Your task to perform on an android device: turn on notifications settings in the gmail app Image 0: 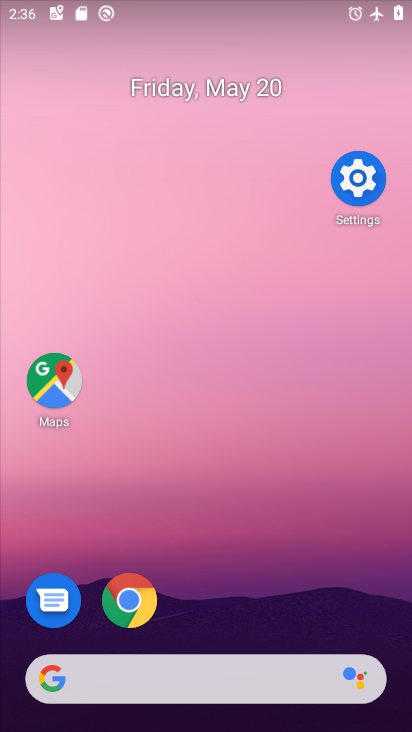
Step 0: drag from (194, 613) to (265, 18)
Your task to perform on an android device: turn on notifications settings in the gmail app Image 1: 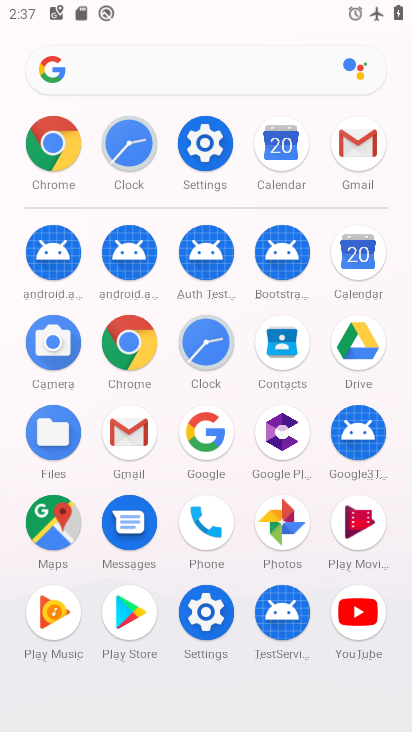
Step 1: click (141, 456)
Your task to perform on an android device: turn on notifications settings in the gmail app Image 2: 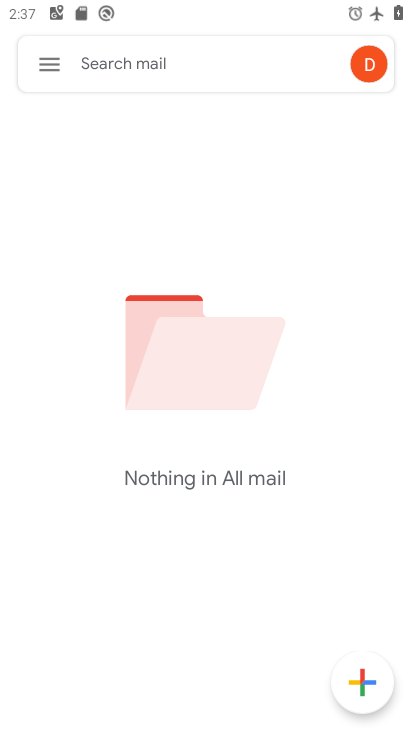
Step 2: click (53, 63)
Your task to perform on an android device: turn on notifications settings in the gmail app Image 3: 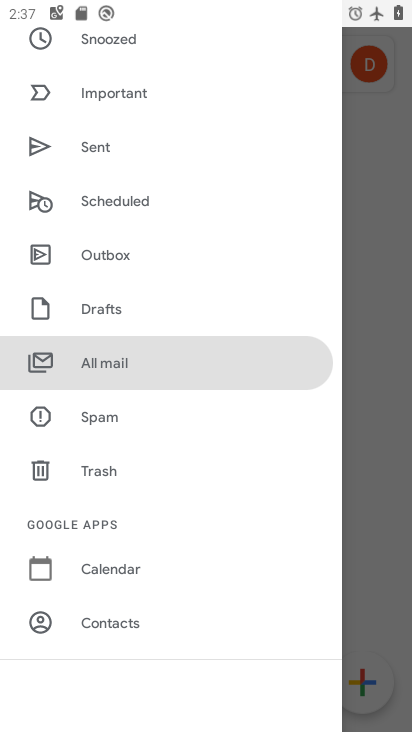
Step 3: drag from (115, 543) to (192, 81)
Your task to perform on an android device: turn on notifications settings in the gmail app Image 4: 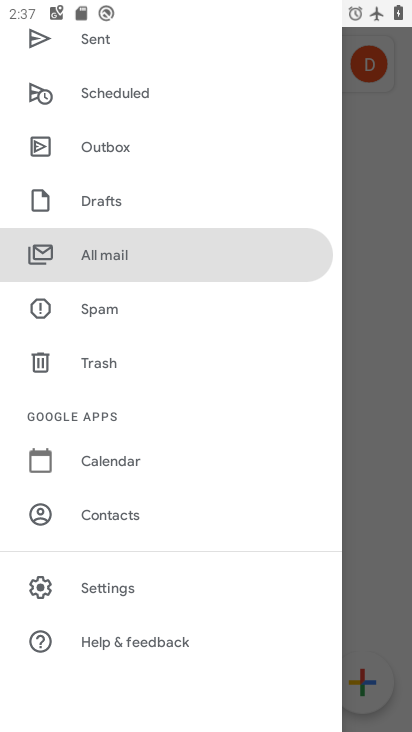
Step 4: click (109, 594)
Your task to perform on an android device: turn on notifications settings in the gmail app Image 5: 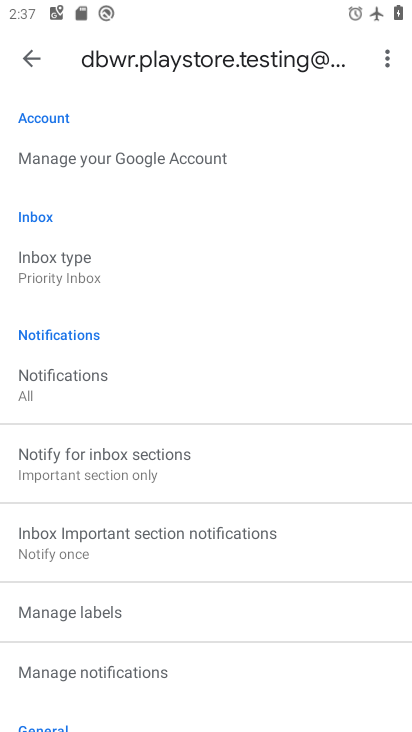
Step 5: drag from (106, 557) to (120, 502)
Your task to perform on an android device: turn on notifications settings in the gmail app Image 6: 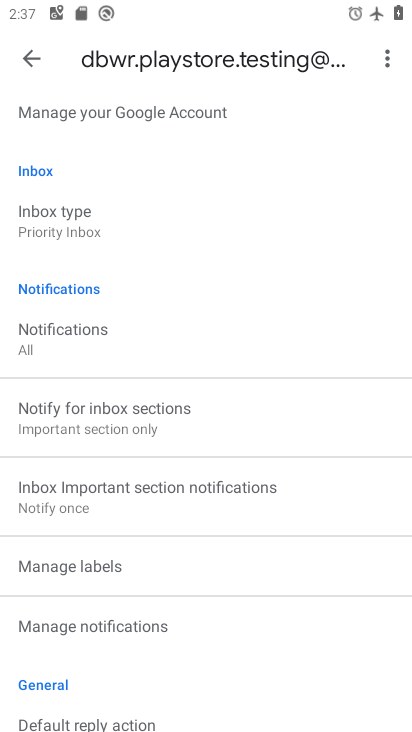
Step 6: click (29, 65)
Your task to perform on an android device: turn on notifications settings in the gmail app Image 7: 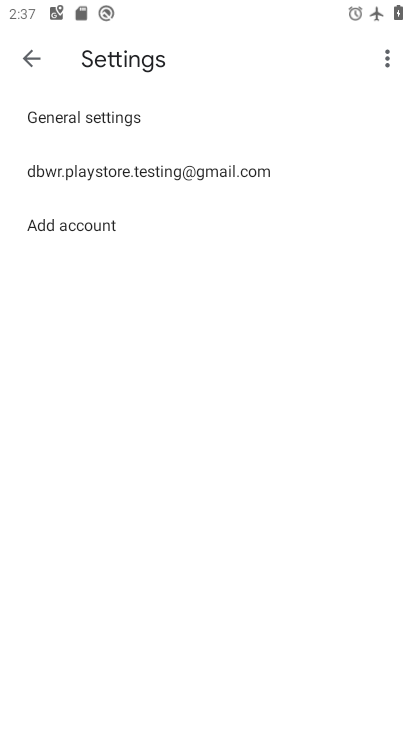
Step 7: click (128, 116)
Your task to perform on an android device: turn on notifications settings in the gmail app Image 8: 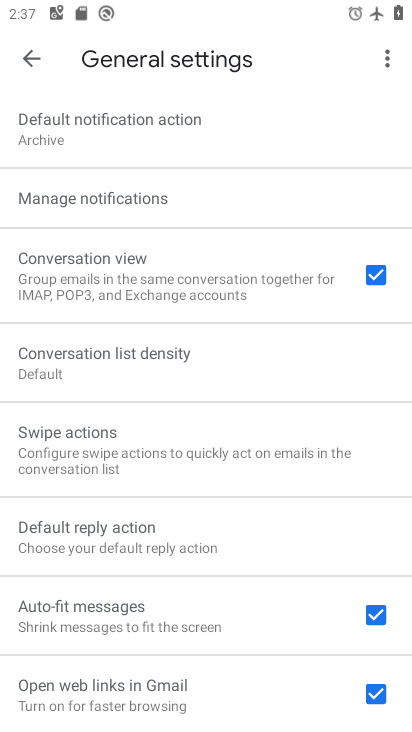
Step 8: click (117, 200)
Your task to perform on an android device: turn on notifications settings in the gmail app Image 9: 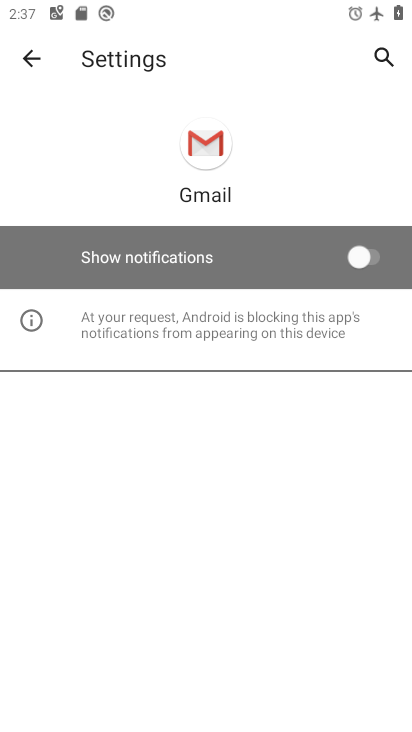
Step 9: click (365, 252)
Your task to perform on an android device: turn on notifications settings in the gmail app Image 10: 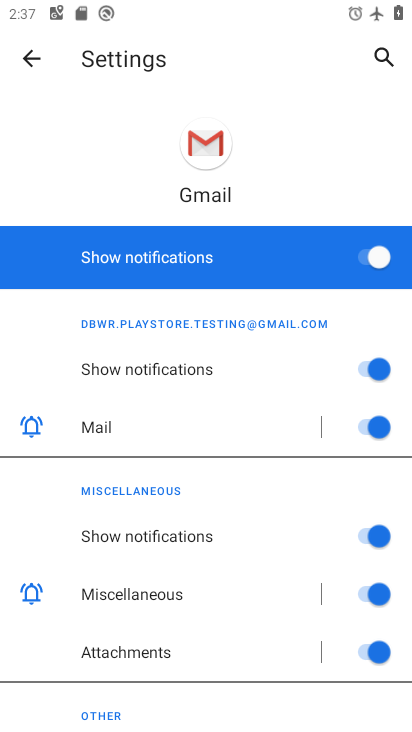
Step 10: task complete